Your task to perform on an android device: Go to Android settings Image 0: 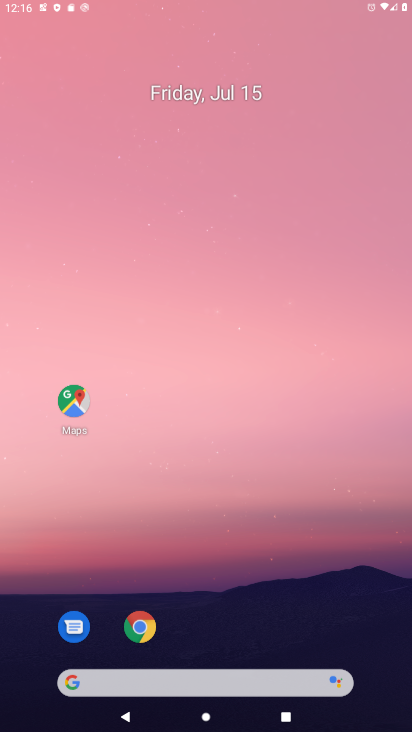
Step 0: press home button
Your task to perform on an android device: Go to Android settings Image 1: 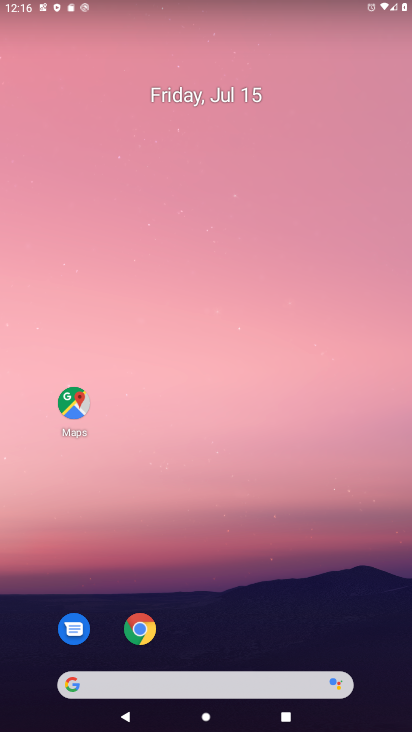
Step 1: drag from (201, 640) to (136, 17)
Your task to perform on an android device: Go to Android settings Image 2: 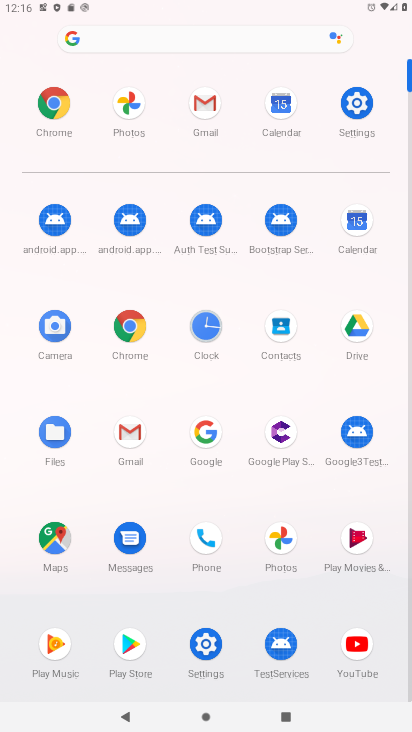
Step 2: click (359, 102)
Your task to perform on an android device: Go to Android settings Image 3: 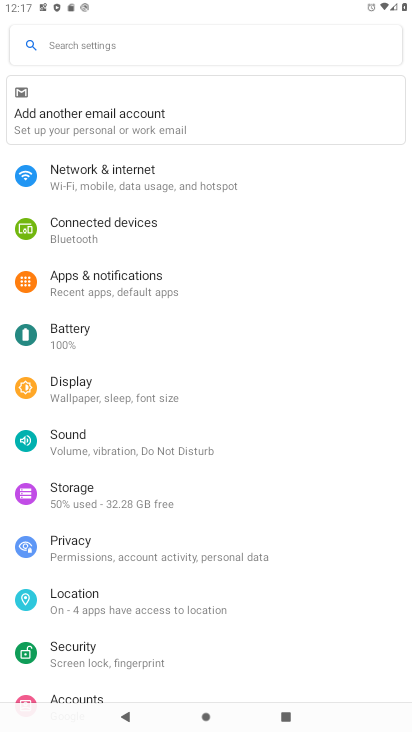
Step 3: task complete